Your task to perform on an android device: turn notification dots on Image 0: 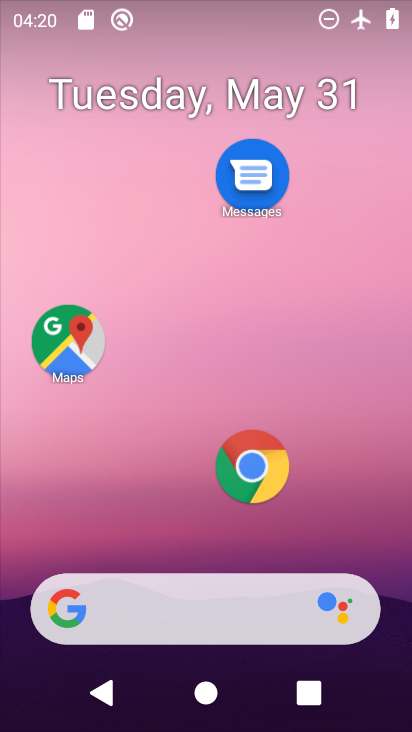
Step 0: drag from (170, 505) to (154, 83)
Your task to perform on an android device: turn notification dots on Image 1: 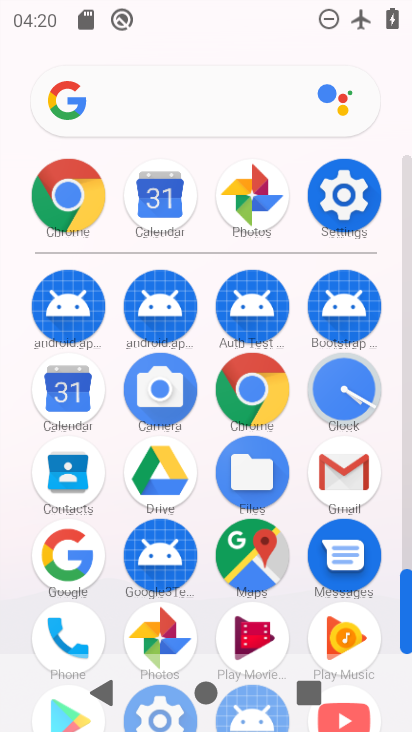
Step 1: click (350, 187)
Your task to perform on an android device: turn notification dots on Image 2: 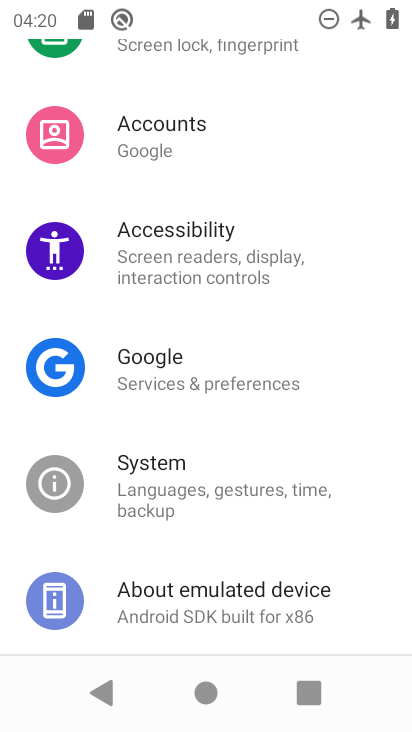
Step 2: drag from (202, 154) to (179, 616)
Your task to perform on an android device: turn notification dots on Image 3: 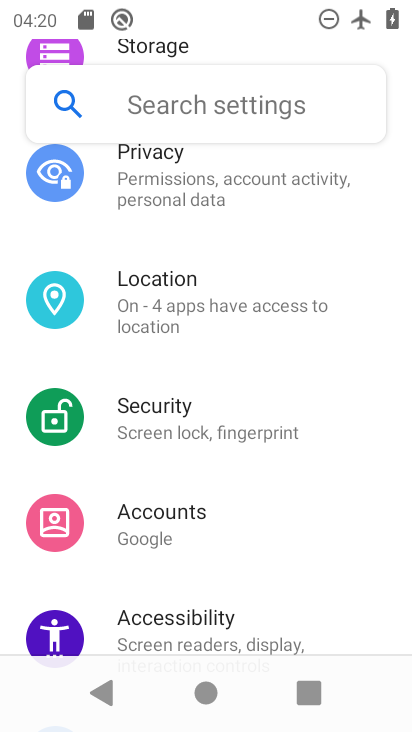
Step 3: drag from (242, 178) to (173, 626)
Your task to perform on an android device: turn notification dots on Image 4: 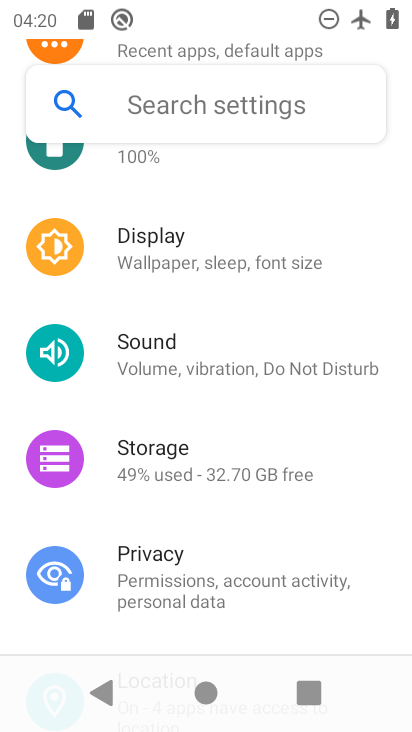
Step 4: drag from (194, 214) to (190, 668)
Your task to perform on an android device: turn notification dots on Image 5: 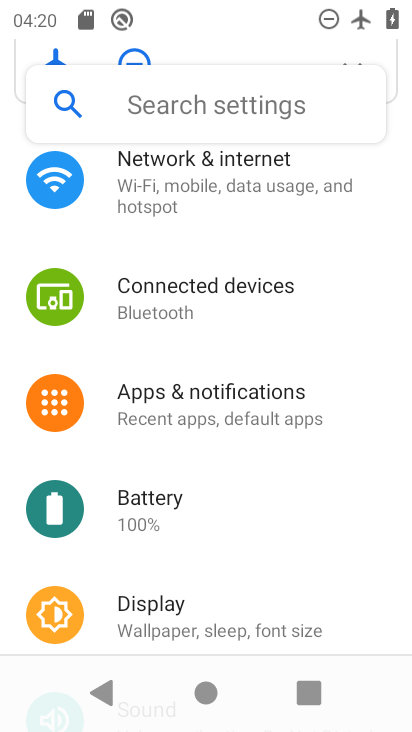
Step 5: click (207, 409)
Your task to perform on an android device: turn notification dots on Image 6: 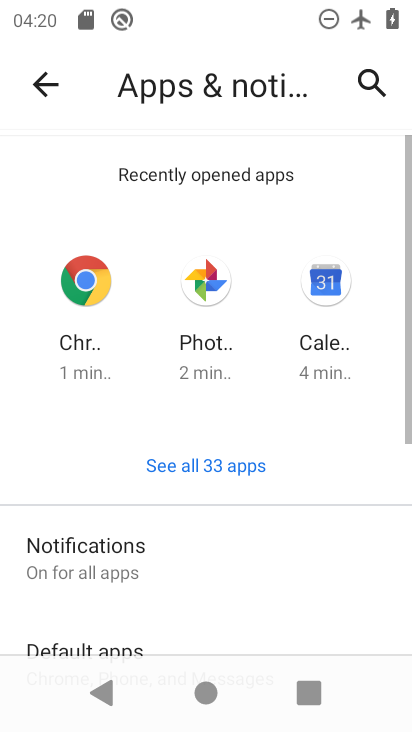
Step 6: drag from (148, 650) to (224, 178)
Your task to perform on an android device: turn notification dots on Image 7: 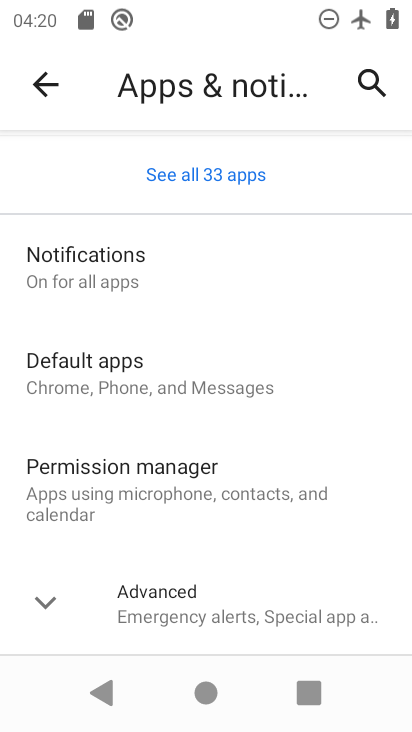
Step 7: click (180, 594)
Your task to perform on an android device: turn notification dots on Image 8: 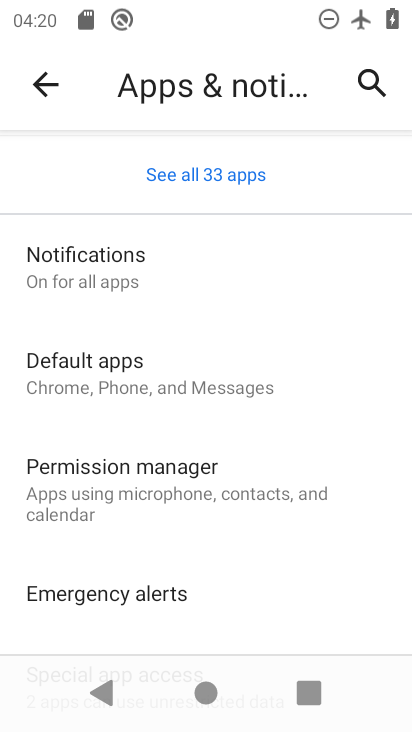
Step 8: drag from (157, 582) to (228, 157)
Your task to perform on an android device: turn notification dots on Image 9: 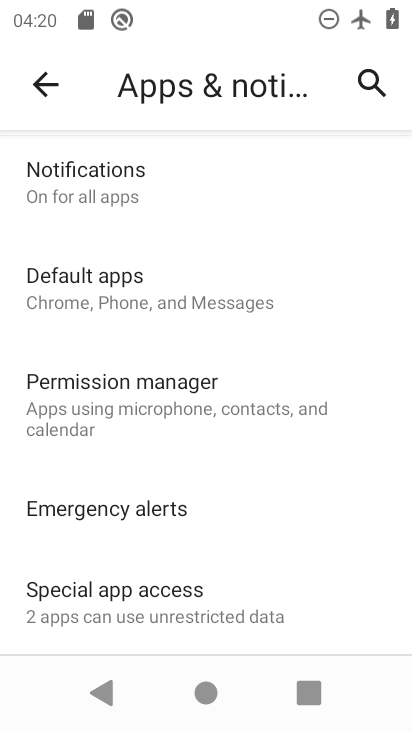
Step 9: drag from (177, 592) to (296, 118)
Your task to perform on an android device: turn notification dots on Image 10: 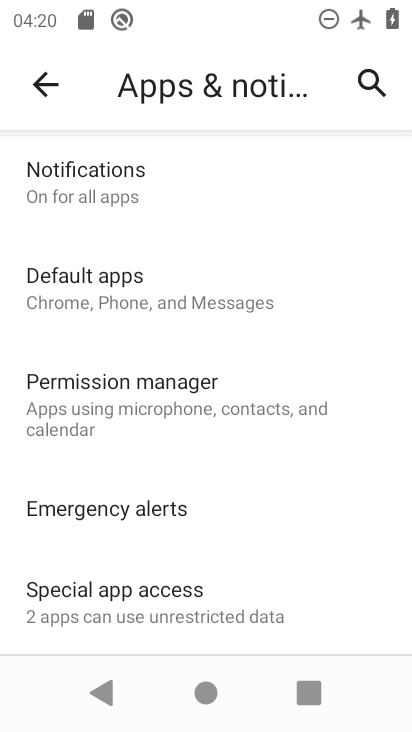
Step 10: click (88, 182)
Your task to perform on an android device: turn notification dots on Image 11: 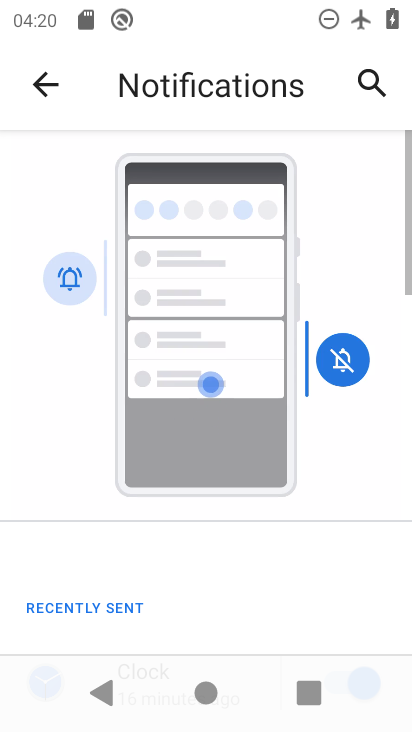
Step 11: drag from (147, 606) to (199, 97)
Your task to perform on an android device: turn notification dots on Image 12: 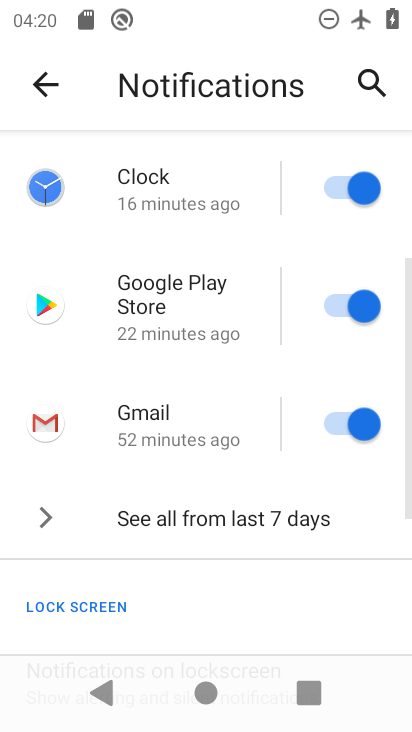
Step 12: drag from (172, 615) to (266, 138)
Your task to perform on an android device: turn notification dots on Image 13: 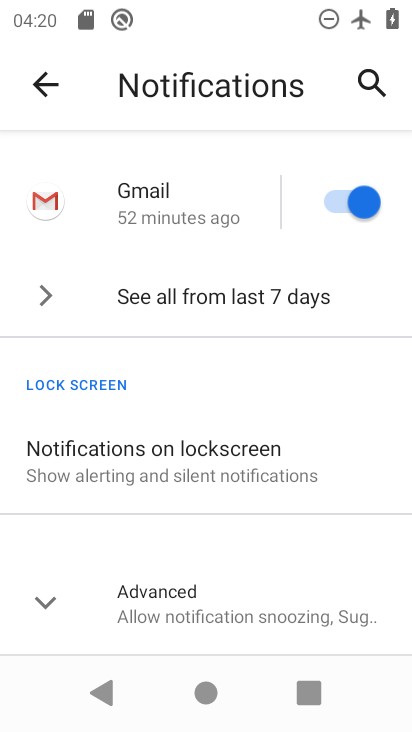
Step 13: click (167, 614)
Your task to perform on an android device: turn notification dots on Image 14: 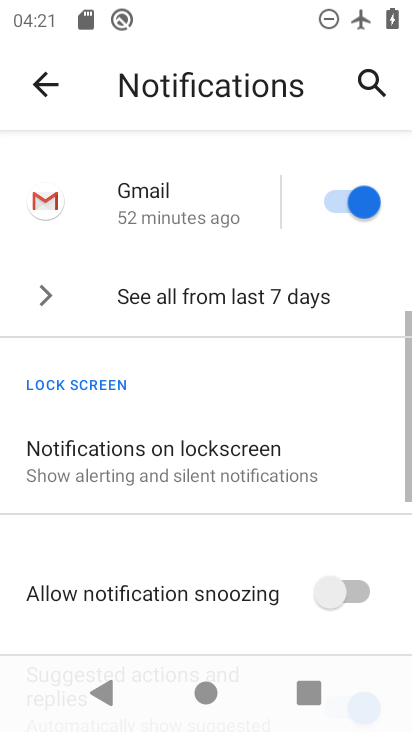
Step 14: drag from (177, 596) to (267, 202)
Your task to perform on an android device: turn notification dots on Image 15: 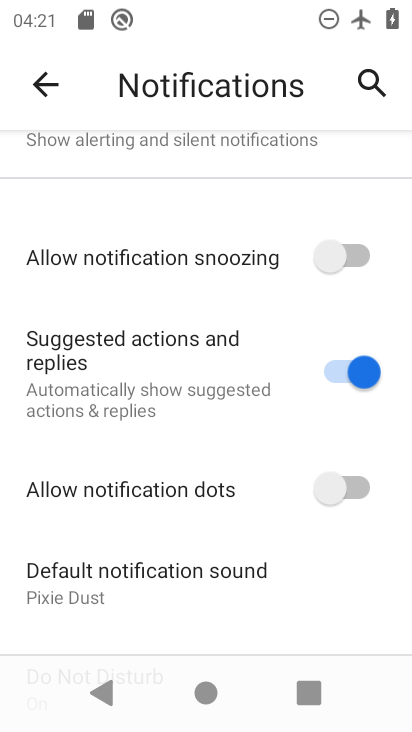
Step 15: click (342, 486)
Your task to perform on an android device: turn notification dots on Image 16: 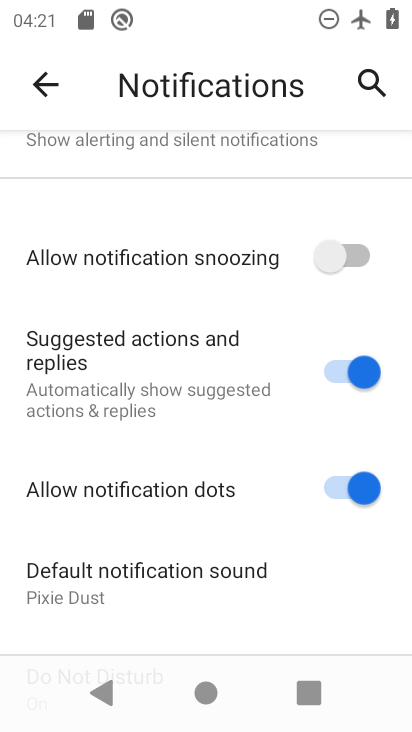
Step 16: task complete